Your task to perform on an android device: Open Chrome and go to the settings page Image 0: 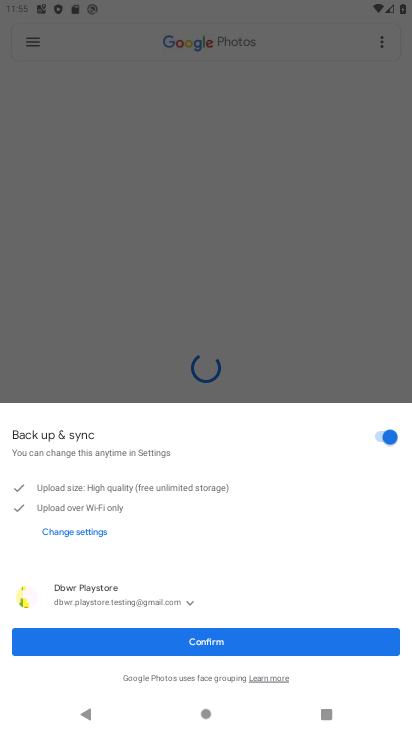
Step 0: drag from (247, 339) to (217, 171)
Your task to perform on an android device: Open Chrome and go to the settings page Image 1: 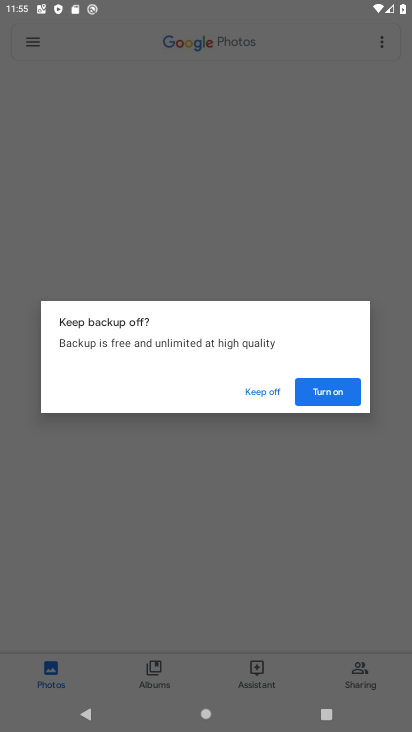
Step 1: click (334, 384)
Your task to perform on an android device: Open Chrome and go to the settings page Image 2: 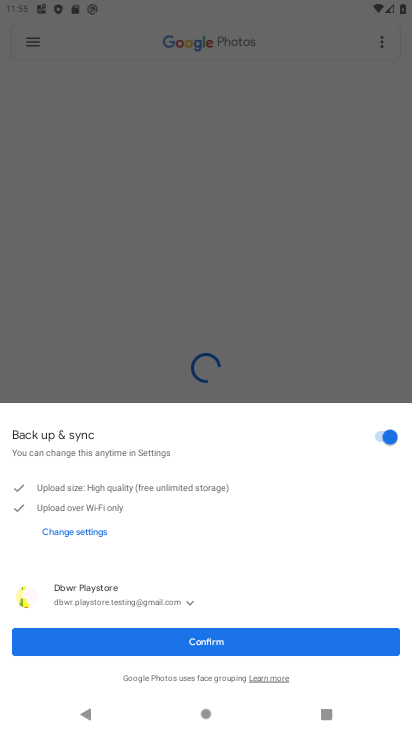
Step 2: press home button
Your task to perform on an android device: Open Chrome and go to the settings page Image 3: 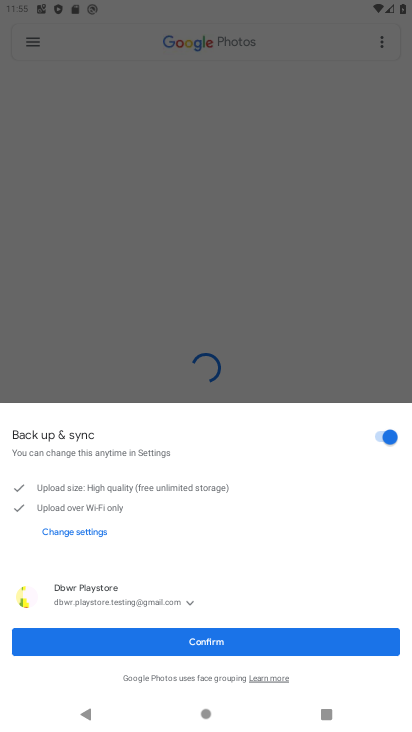
Step 3: press home button
Your task to perform on an android device: Open Chrome and go to the settings page Image 4: 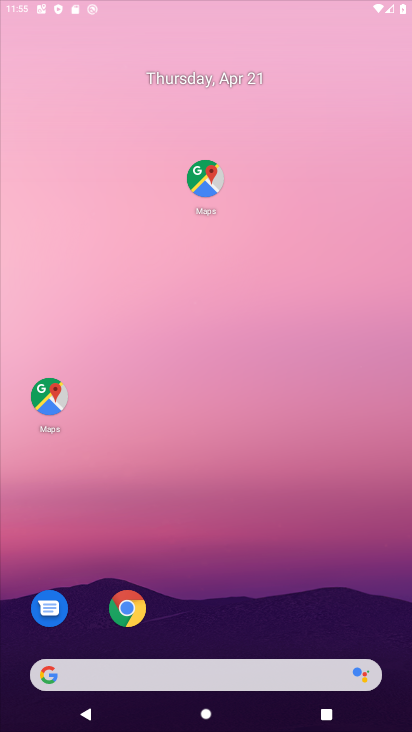
Step 4: press home button
Your task to perform on an android device: Open Chrome and go to the settings page Image 5: 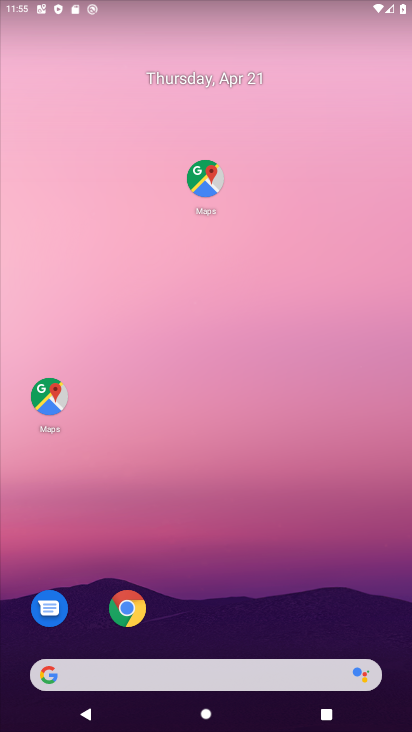
Step 5: press home button
Your task to perform on an android device: Open Chrome and go to the settings page Image 6: 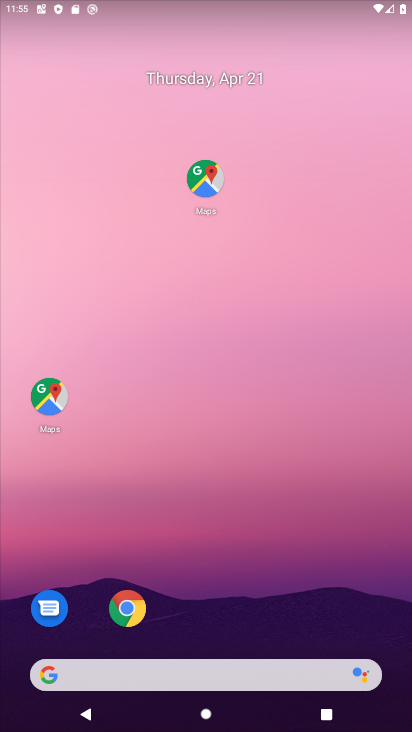
Step 6: press home button
Your task to perform on an android device: Open Chrome and go to the settings page Image 7: 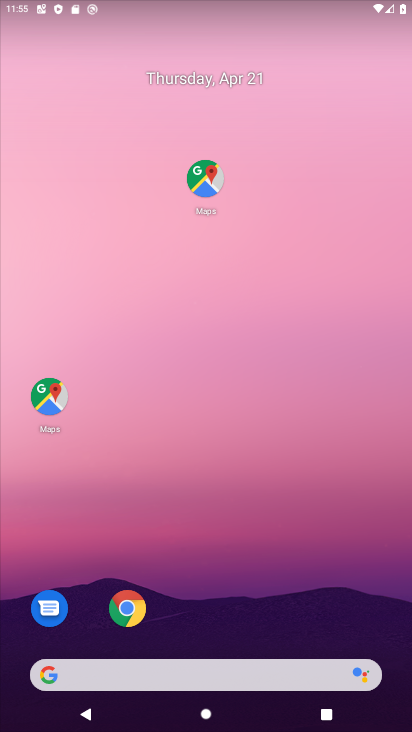
Step 7: drag from (309, 683) to (230, 173)
Your task to perform on an android device: Open Chrome and go to the settings page Image 8: 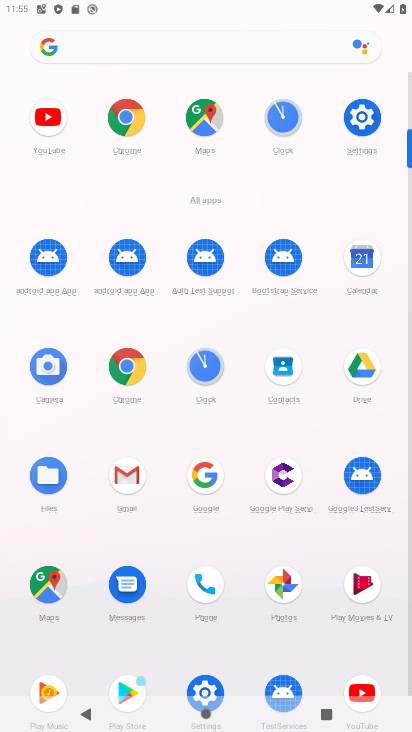
Step 8: click (120, 120)
Your task to perform on an android device: Open Chrome and go to the settings page Image 9: 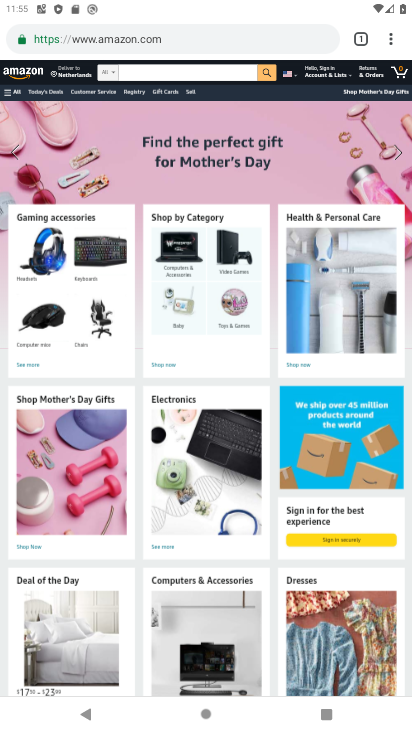
Step 9: drag from (385, 35) to (0, 6)
Your task to perform on an android device: Open Chrome and go to the settings page Image 10: 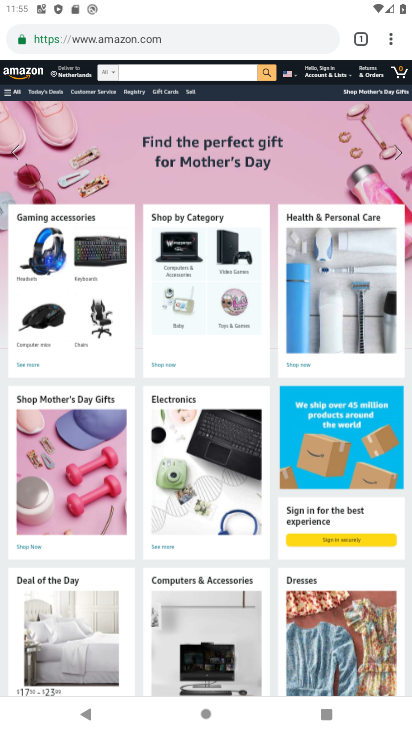
Step 10: drag from (390, 31) to (244, 505)
Your task to perform on an android device: Open Chrome and go to the settings page Image 11: 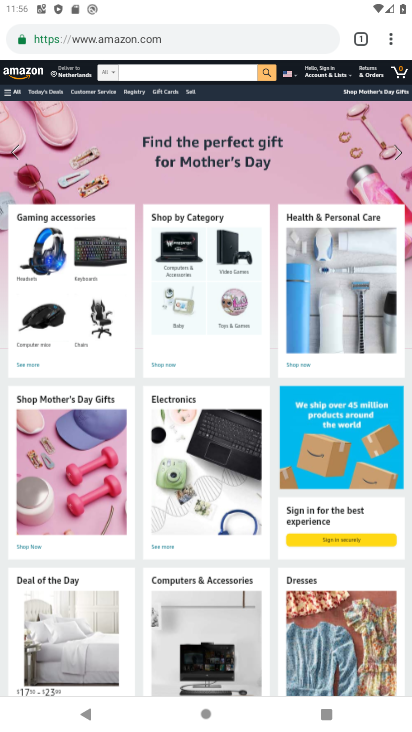
Step 11: click (244, 505)
Your task to perform on an android device: Open Chrome and go to the settings page Image 12: 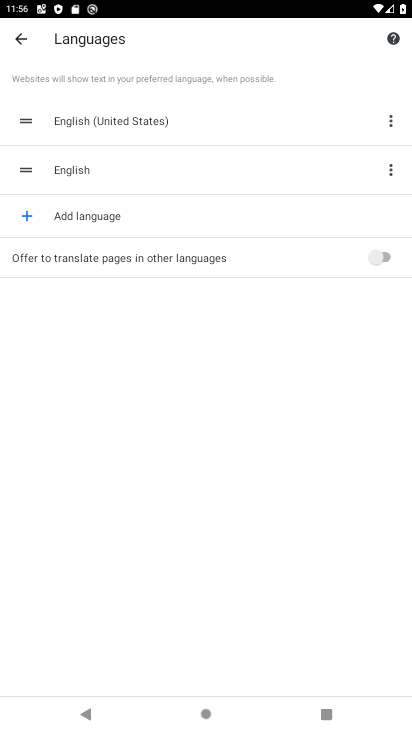
Step 12: click (14, 30)
Your task to perform on an android device: Open Chrome and go to the settings page Image 13: 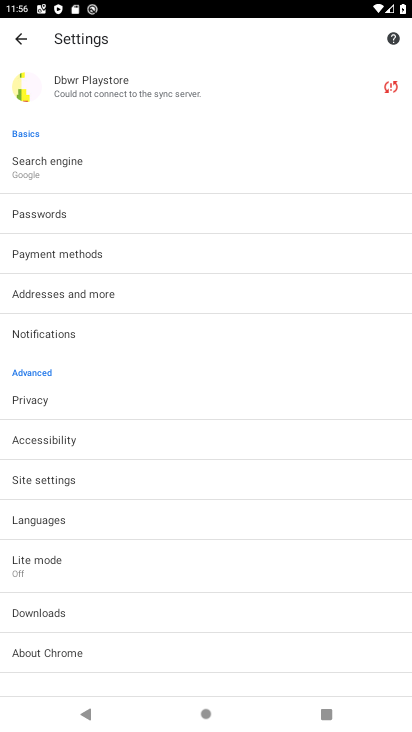
Step 13: task complete